Your task to perform on an android device: toggle translation in the chrome app Image 0: 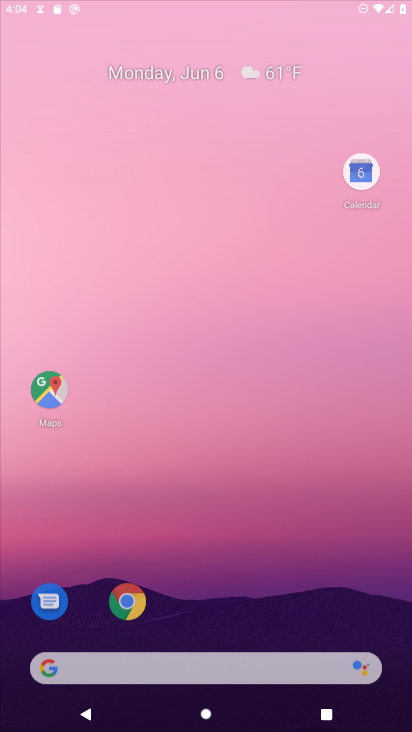
Step 0: click (376, 63)
Your task to perform on an android device: toggle translation in the chrome app Image 1: 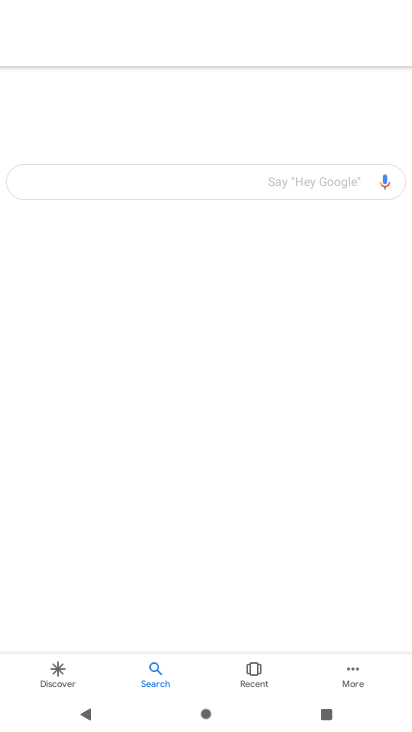
Step 1: press home button
Your task to perform on an android device: toggle translation in the chrome app Image 2: 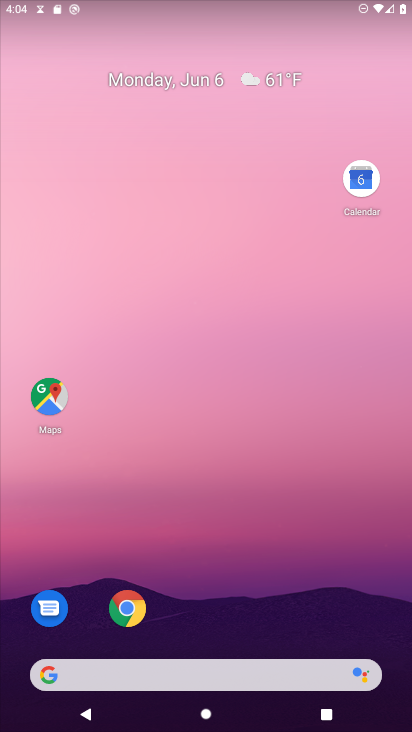
Step 2: click (130, 604)
Your task to perform on an android device: toggle translation in the chrome app Image 3: 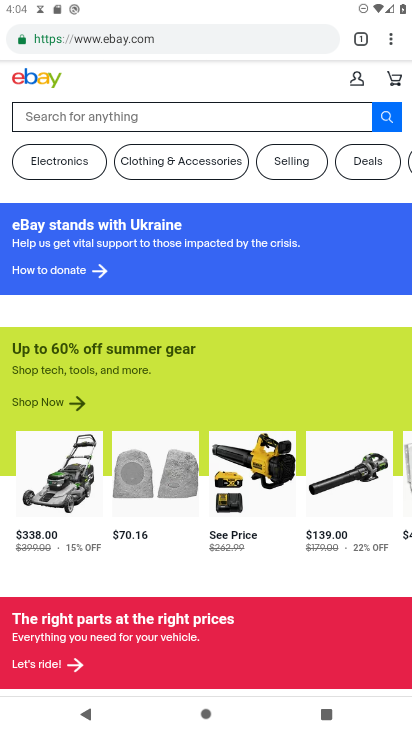
Step 3: click (399, 40)
Your task to perform on an android device: toggle translation in the chrome app Image 4: 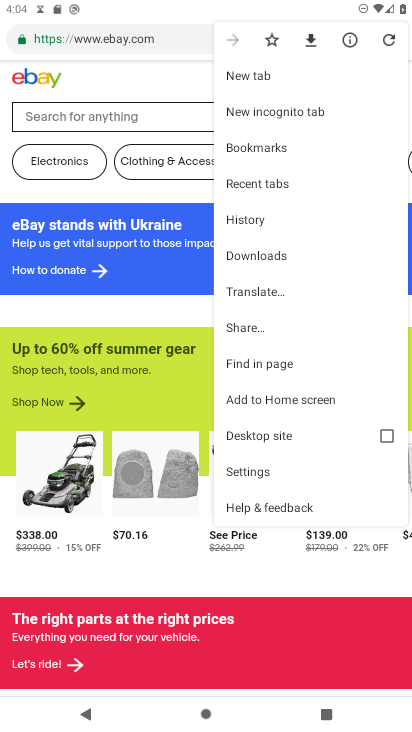
Step 4: click (286, 473)
Your task to perform on an android device: toggle translation in the chrome app Image 5: 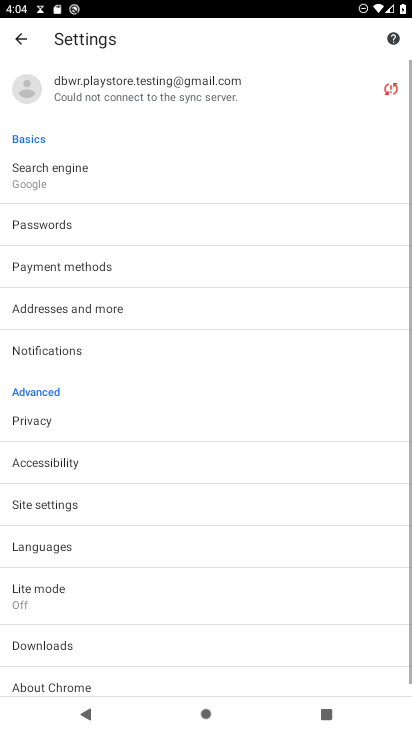
Step 5: drag from (131, 646) to (175, 371)
Your task to perform on an android device: toggle translation in the chrome app Image 6: 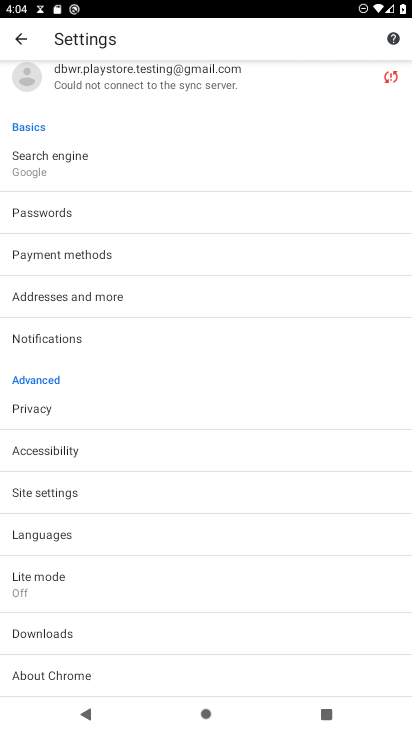
Step 6: click (51, 536)
Your task to perform on an android device: toggle translation in the chrome app Image 7: 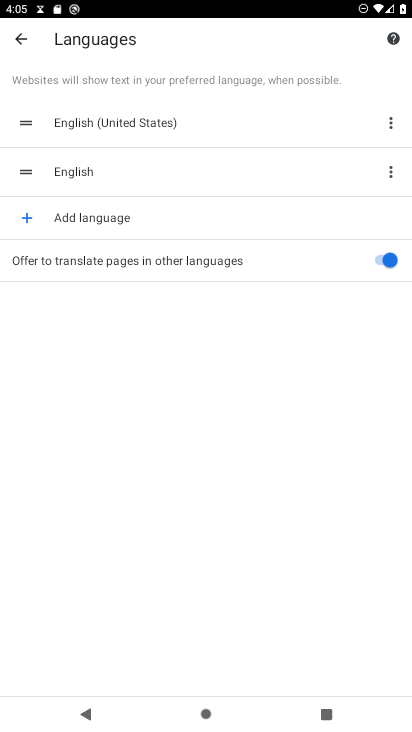
Step 7: click (372, 267)
Your task to perform on an android device: toggle translation in the chrome app Image 8: 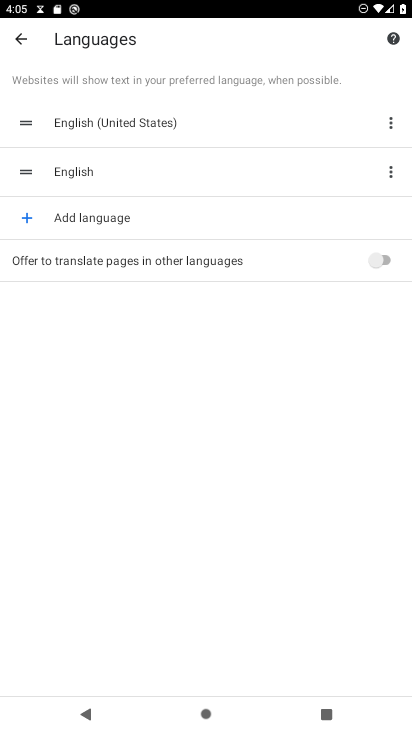
Step 8: task complete